Your task to perform on an android device: turn on translation in the chrome app Image 0: 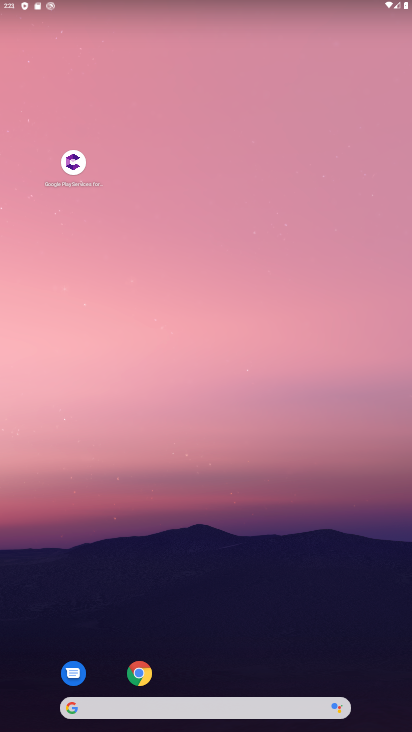
Step 0: click (147, 670)
Your task to perform on an android device: turn on translation in the chrome app Image 1: 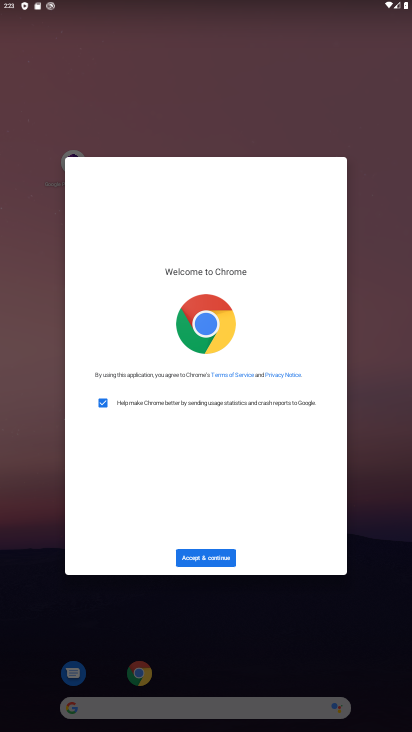
Step 1: click (229, 563)
Your task to perform on an android device: turn on translation in the chrome app Image 2: 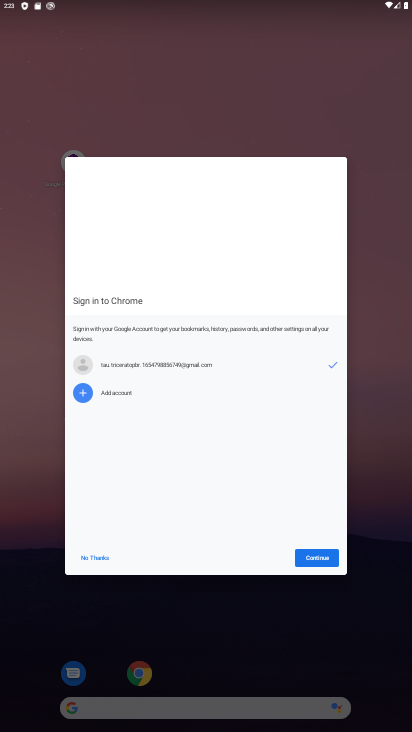
Step 2: click (333, 552)
Your task to perform on an android device: turn on translation in the chrome app Image 3: 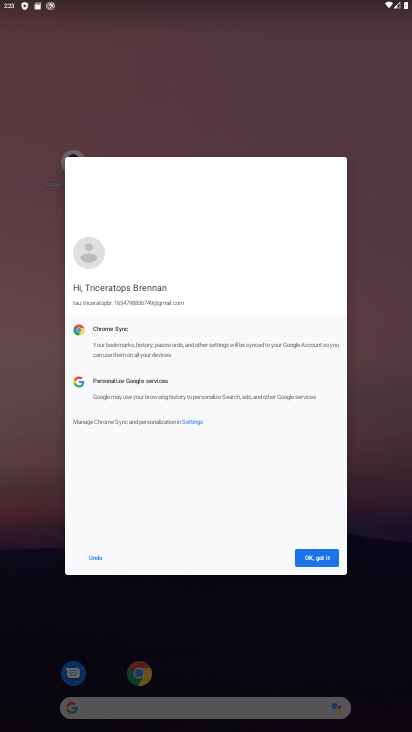
Step 3: click (333, 552)
Your task to perform on an android device: turn on translation in the chrome app Image 4: 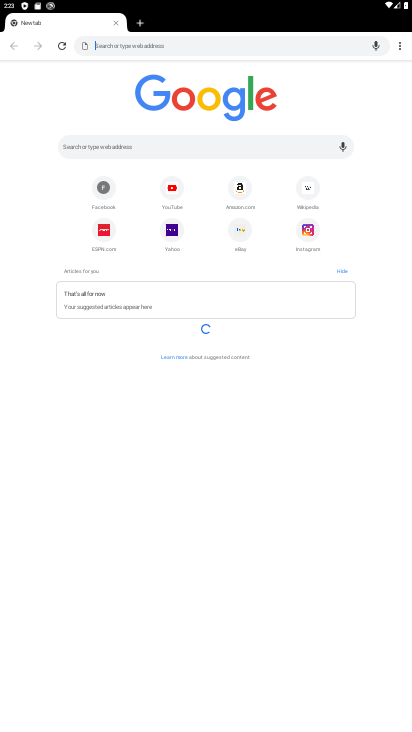
Step 4: click (401, 42)
Your task to perform on an android device: turn on translation in the chrome app Image 5: 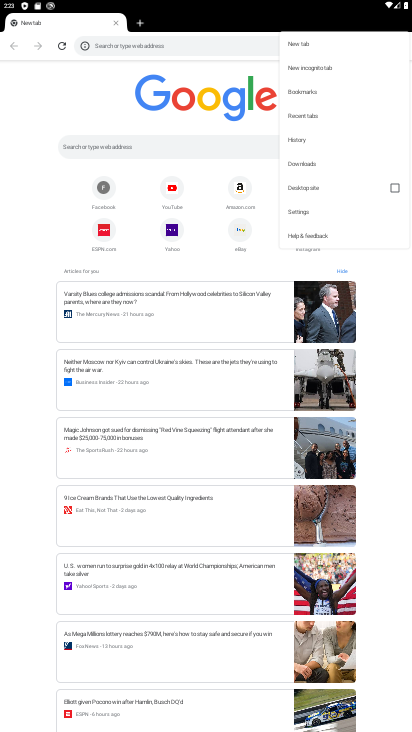
Step 5: click (318, 208)
Your task to perform on an android device: turn on translation in the chrome app Image 6: 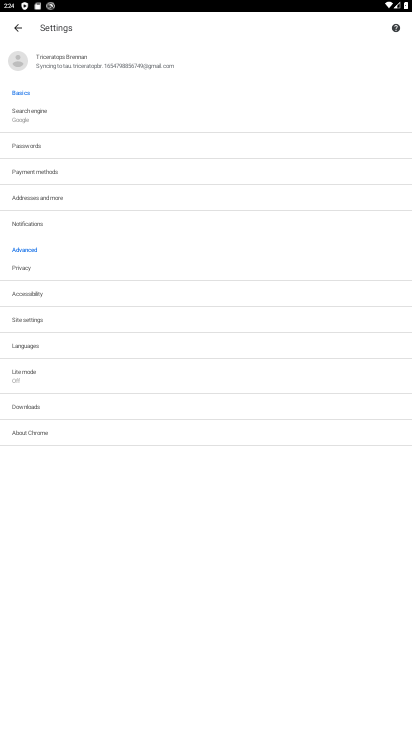
Step 6: click (131, 351)
Your task to perform on an android device: turn on translation in the chrome app Image 7: 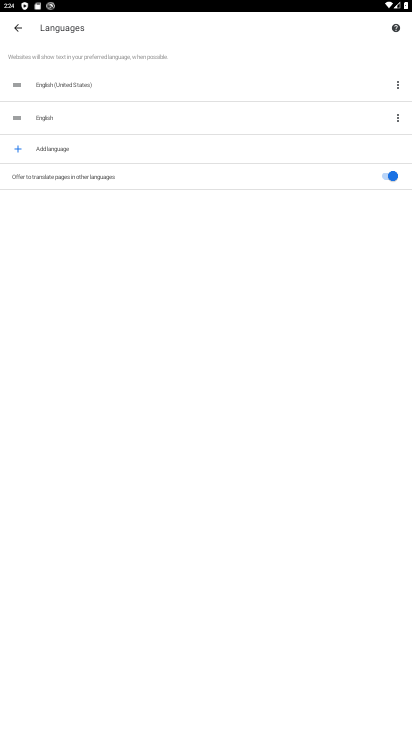
Step 7: task complete